Your task to perform on an android device: turn on translation in the chrome app Image 0: 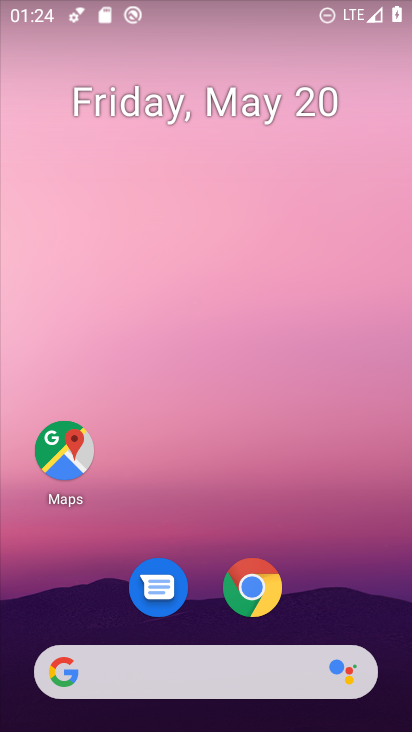
Step 0: drag from (354, 579) to (383, 195)
Your task to perform on an android device: turn on translation in the chrome app Image 1: 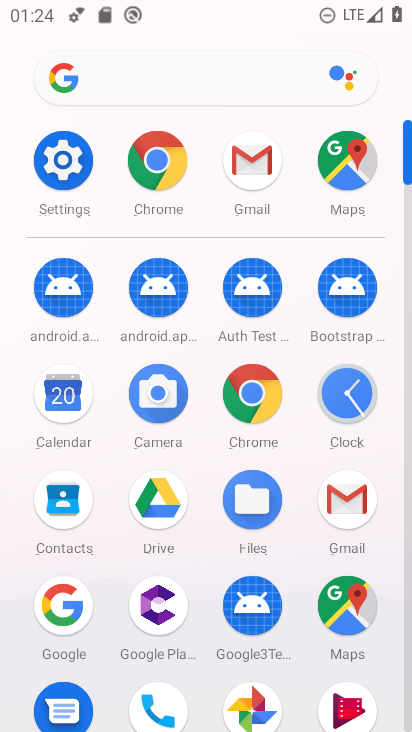
Step 1: click (256, 407)
Your task to perform on an android device: turn on translation in the chrome app Image 2: 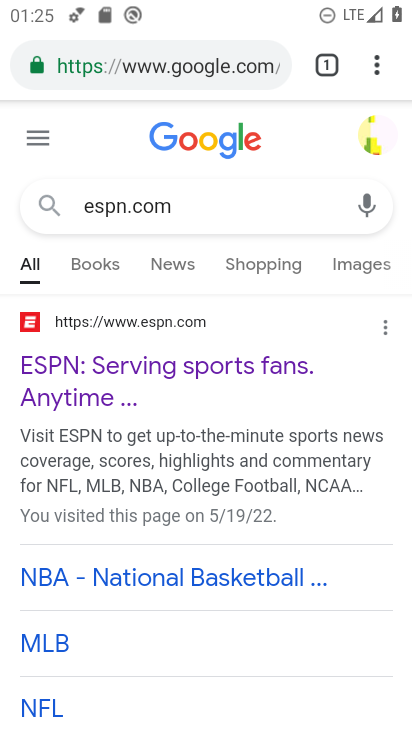
Step 2: click (378, 78)
Your task to perform on an android device: turn on translation in the chrome app Image 3: 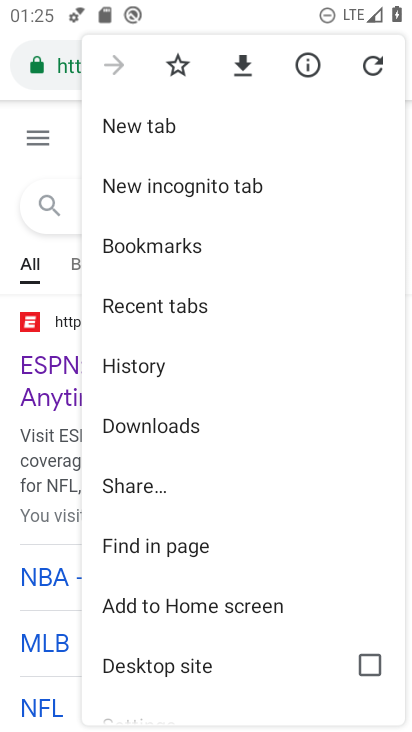
Step 3: drag from (327, 563) to (322, 460)
Your task to perform on an android device: turn on translation in the chrome app Image 4: 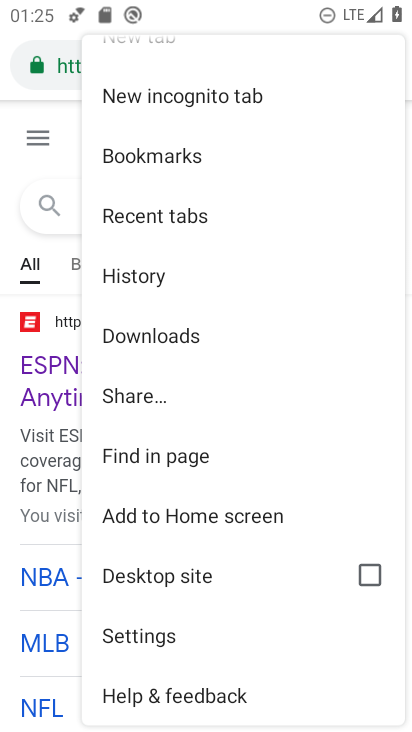
Step 4: drag from (302, 615) to (316, 502)
Your task to perform on an android device: turn on translation in the chrome app Image 5: 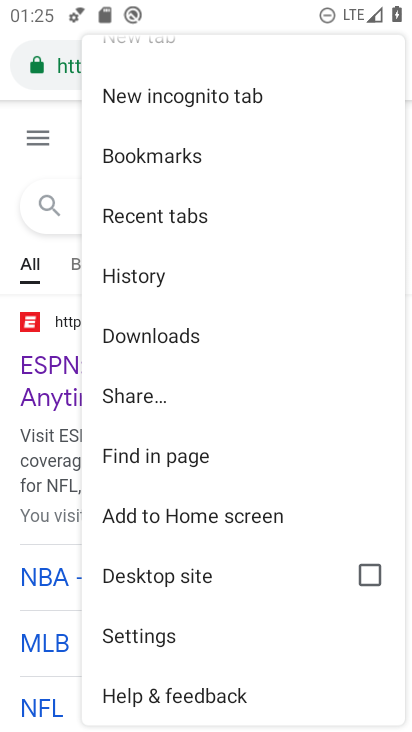
Step 5: click (199, 639)
Your task to perform on an android device: turn on translation in the chrome app Image 6: 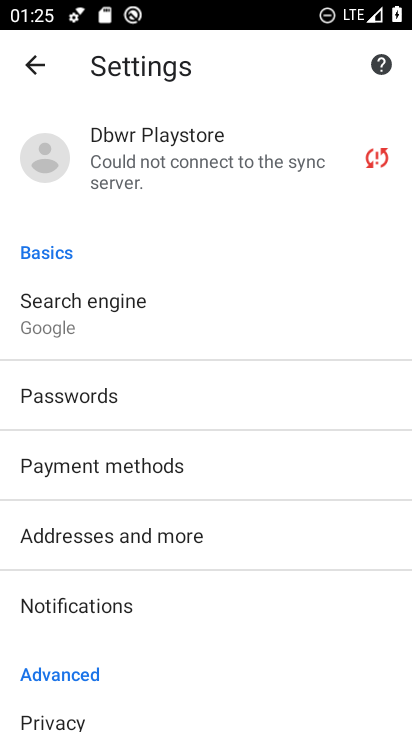
Step 6: drag from (337, 589) to (343, 486)
Your task to perform on an android device: turn on translation in the chrome app Image 7: 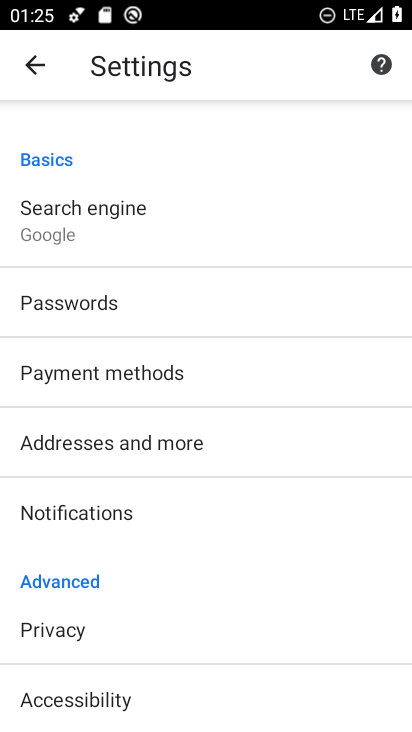
Step 7: drag from (319, 607) to (317, 510)
Your task to perform on an android device: turn on translation in the chrome app Image 8: 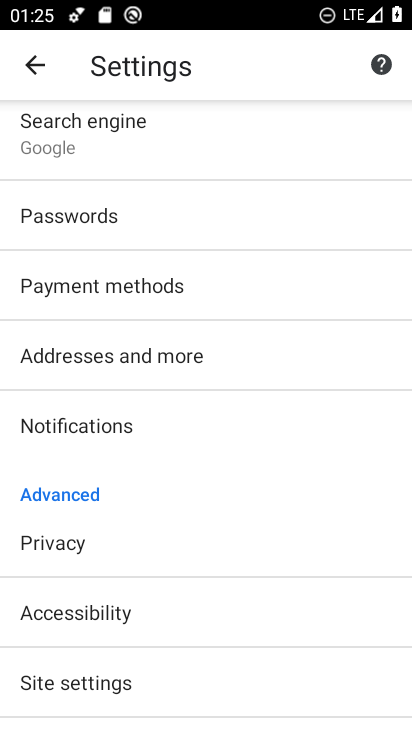
Step 8: drag from (304, 626) to (304, 537)
Your task to perform on an android device: turn on translation in the chrome app Image 9: 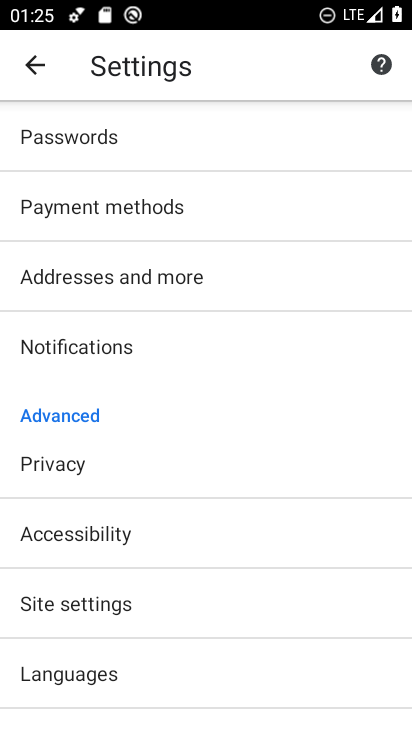
Step 9: drag from (283, 618) to (293, 526)
Your task to perform on an android device: turn on translation in the chrome app Image 10: 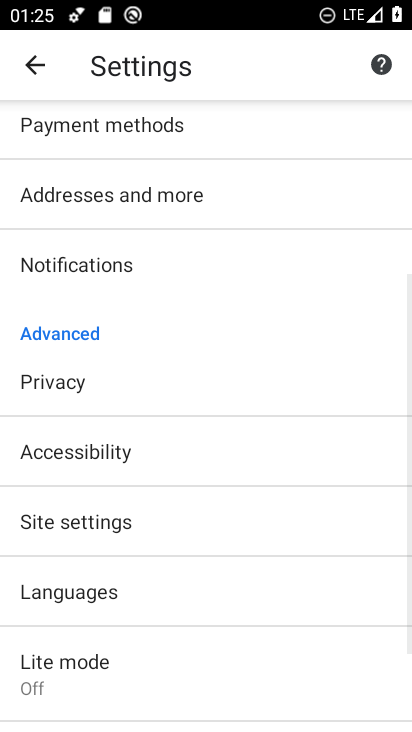
Step 10: drag from (281, 619) to (286, 538)
Your task to perform on an android device: turn on translation in the chrome app Image 11: 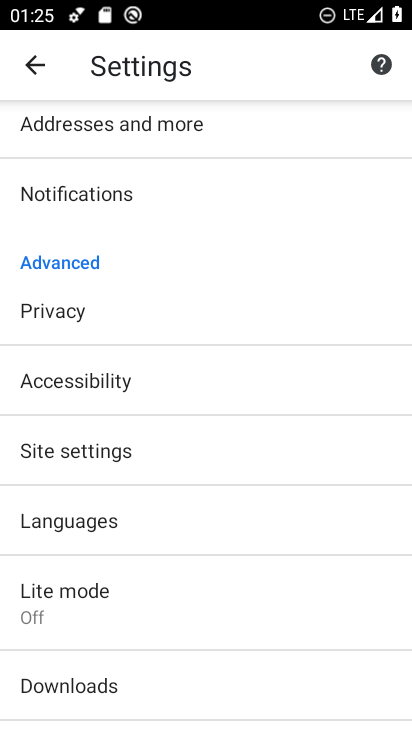
Step 11: drag from (299, 605) to (308, 513)
Your task to perform on an android device: turn on translation in the chrome app Image 12: 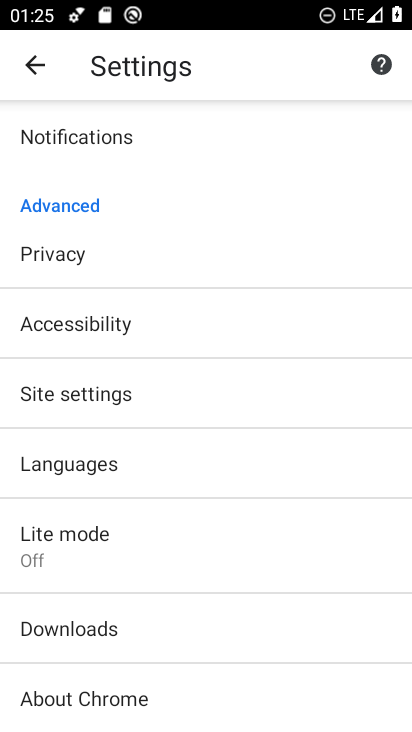
Step 12: click (304, 484)
Your task to perform on an android device: turn on translation in the chrome app Image 13: 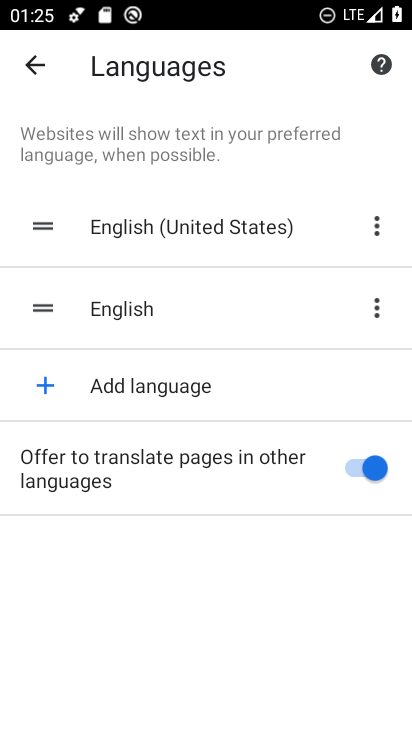
Step 13: task complete